Your task to perform on an android device: Is it going to rain today? Image 0: 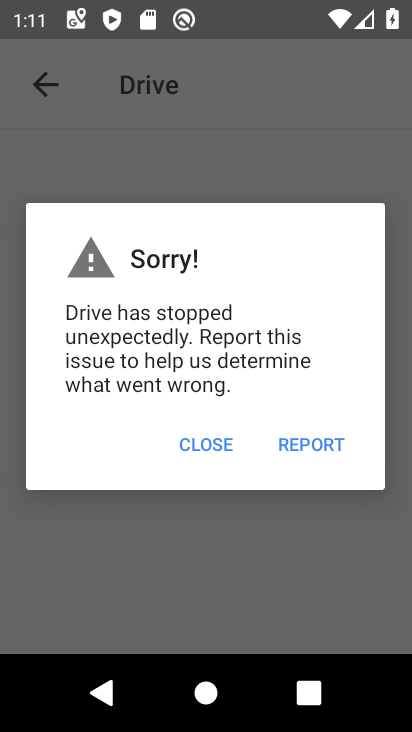
Step 0: press home button
Your task to perform on an android device: Is it going to rain today? Image 1: 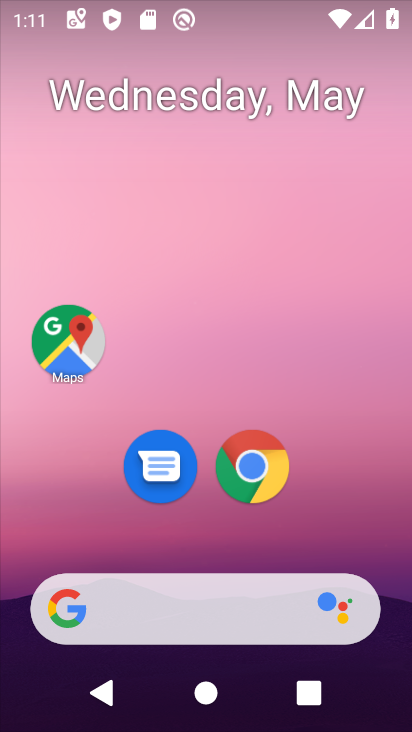
Step 1: drag from (206, 544) to (212, 94)
Your task to perform on an android device: Is it going to rain today? Image 2: 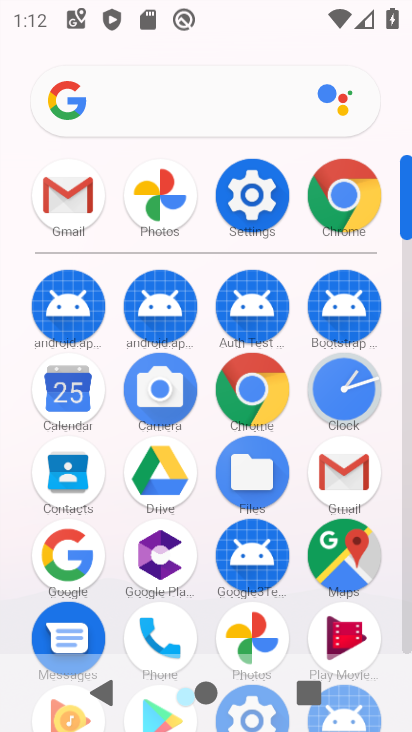
Step 2: click (65, 555)
Your task to perform on an android device: Is it going to rain today? Image 3: 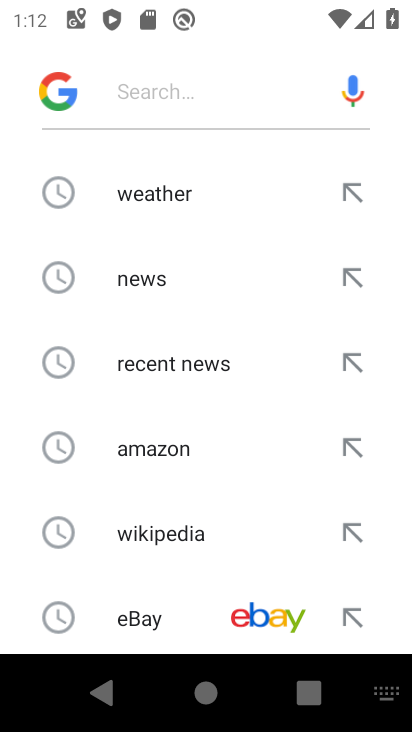
Step 3: click (170, 104)
Your task to perform on an android device: Is it going to rain today? Image 4: 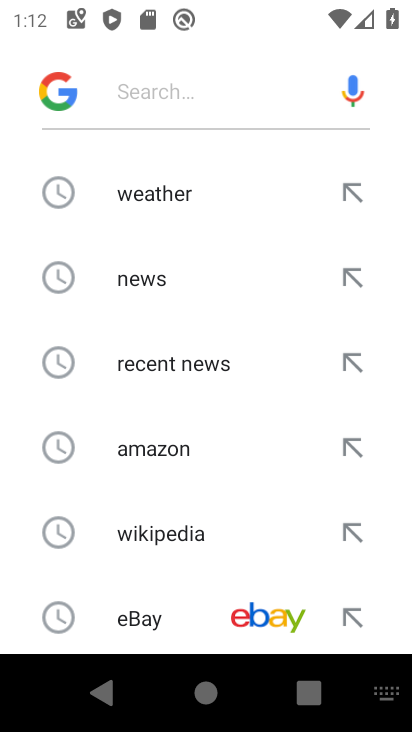
Step 4: type "is it going to rain today"
Your task to perform on an android device: Is it going to rain today? Image 5: 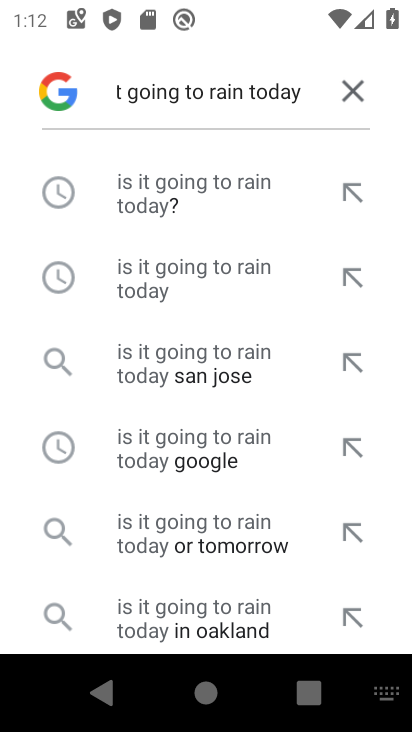
Step 5: click (167, 195)
Your task to perform on an android device: Is it going to rain today? Image 6: 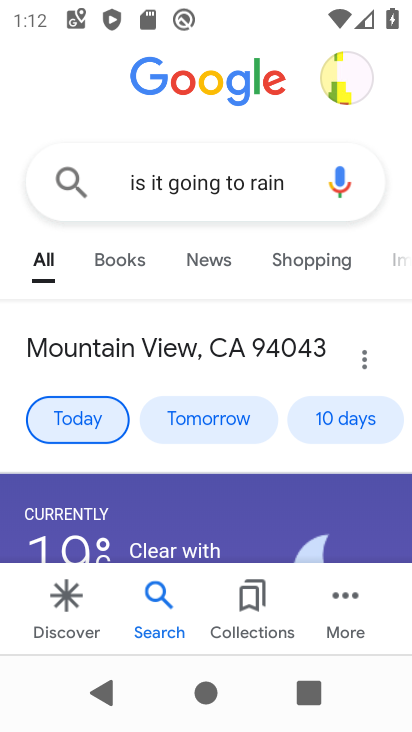
Step 6: task complete